Your task to perform on an android device: change the clock display to show seconds Image 0: 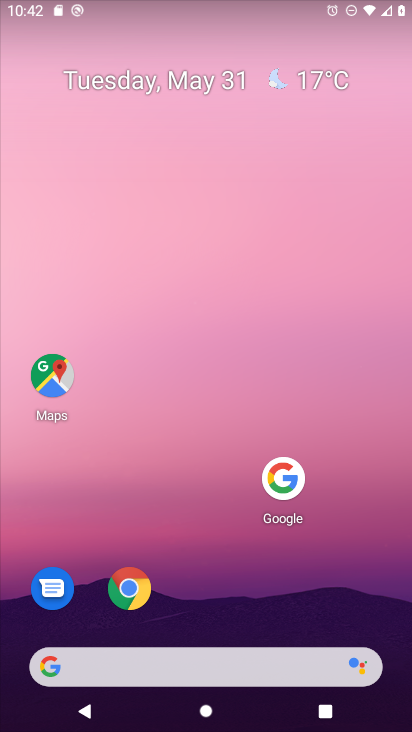
Step 0: press home button
Your task to perform on an android device: change the clock display to show seconds Image 1: 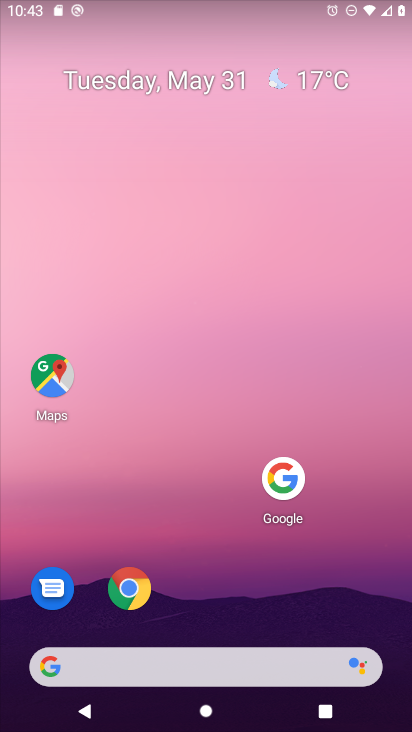
Step 1: drag from (218, 671) to (367, 207)
Your task to perform on an android device: change the clock display to show seconds Image 2: 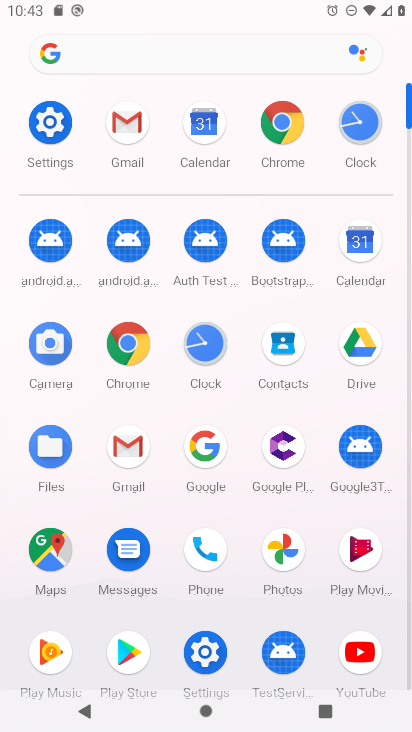
Step 2: click (203, 348)
Your task to perform on an android device: change the clock display to show seconds Image 3: 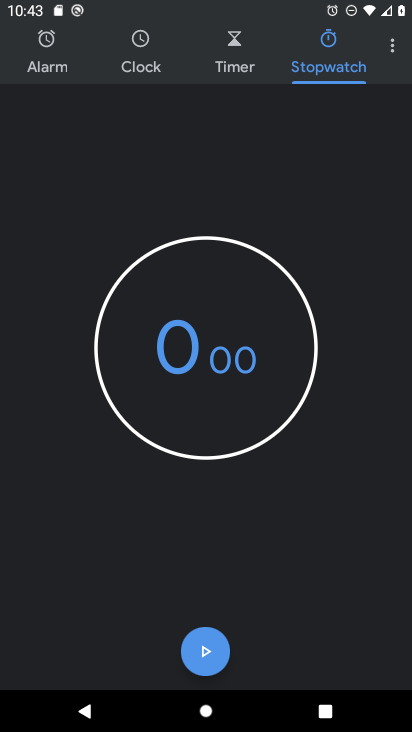
Step 3: click (389, 46)
Your task to perform on an android device: change the clock display to show seconds Image 4: 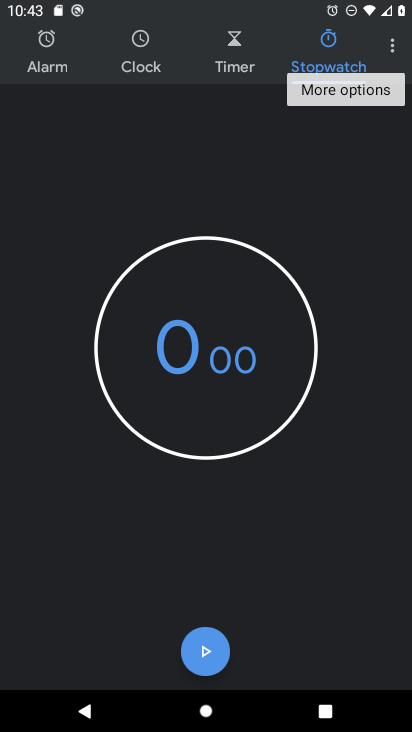
Step 4: click (395, 45)
Your task to perform on an android device: change the clock display to show seconds Image 5: 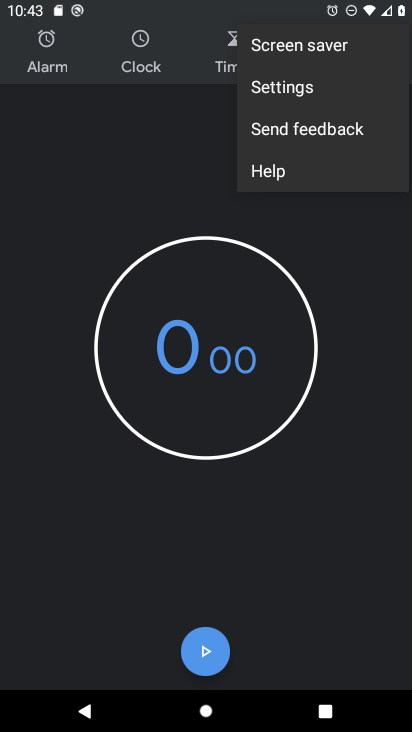
Step 5: click (317, 88)
Your task to perform on an android device: change the clock display to show seconds Image 6: 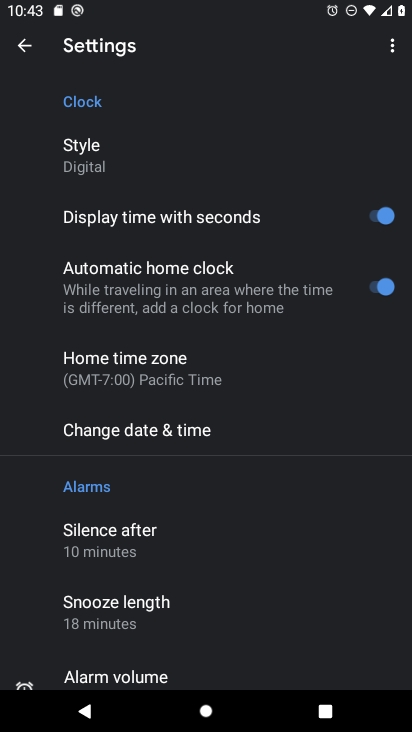
Step 6: task complete